Your task to perform on an android device: When is my next meeting? Image 0: 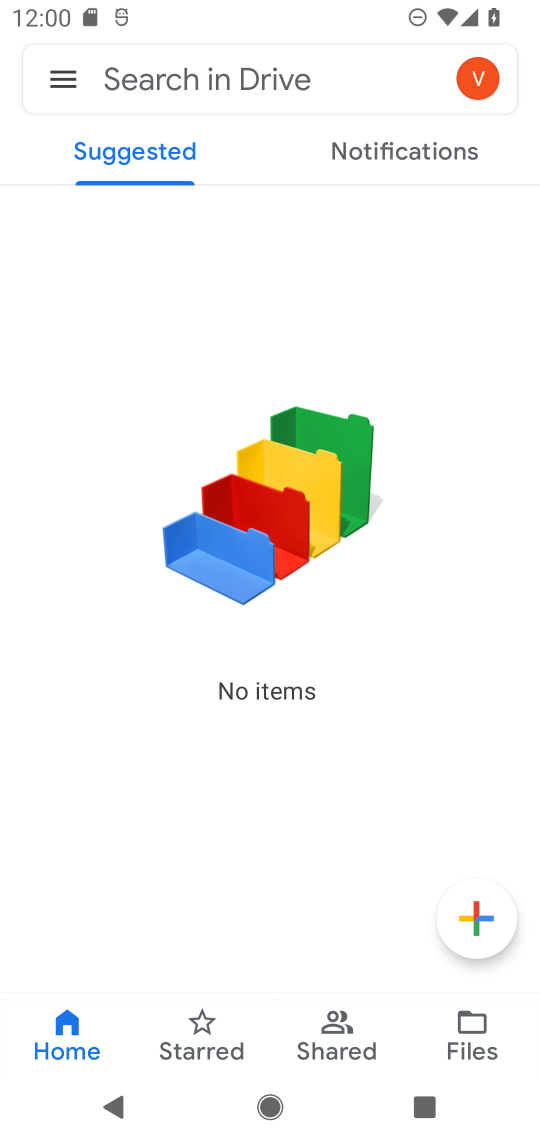
Step 0: press home button
Your task to perform on an android device: When is my next meeting? Image 1: 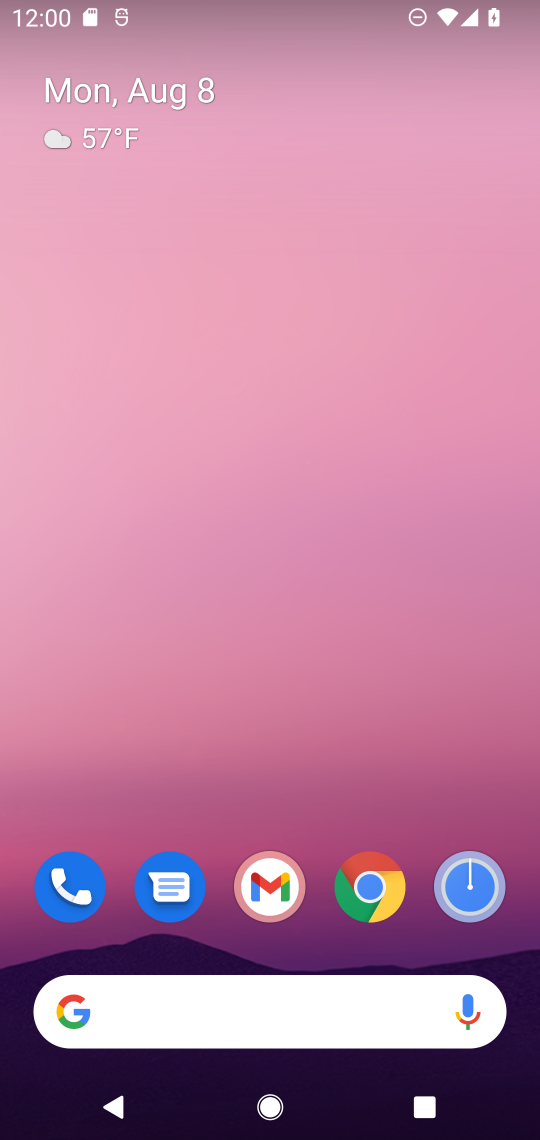
Step 1: drag from (278, 768) to (207, 171)
Your task to perform on an android device: When is my next meeting? Image 2: 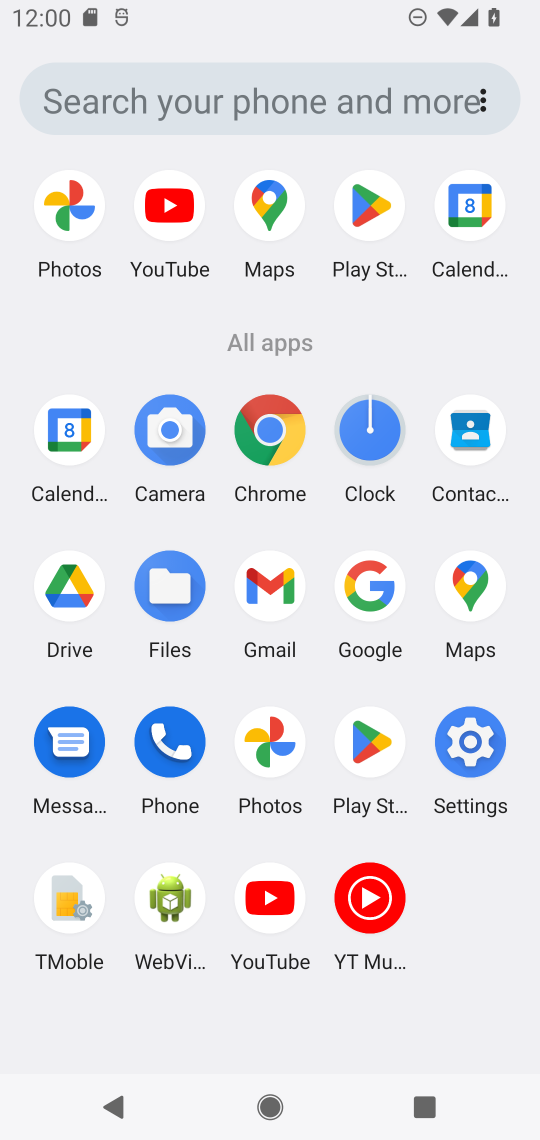
Step 2: click (465, 212)
Your task to perform on an android device: When is my next meeting? Image 3: 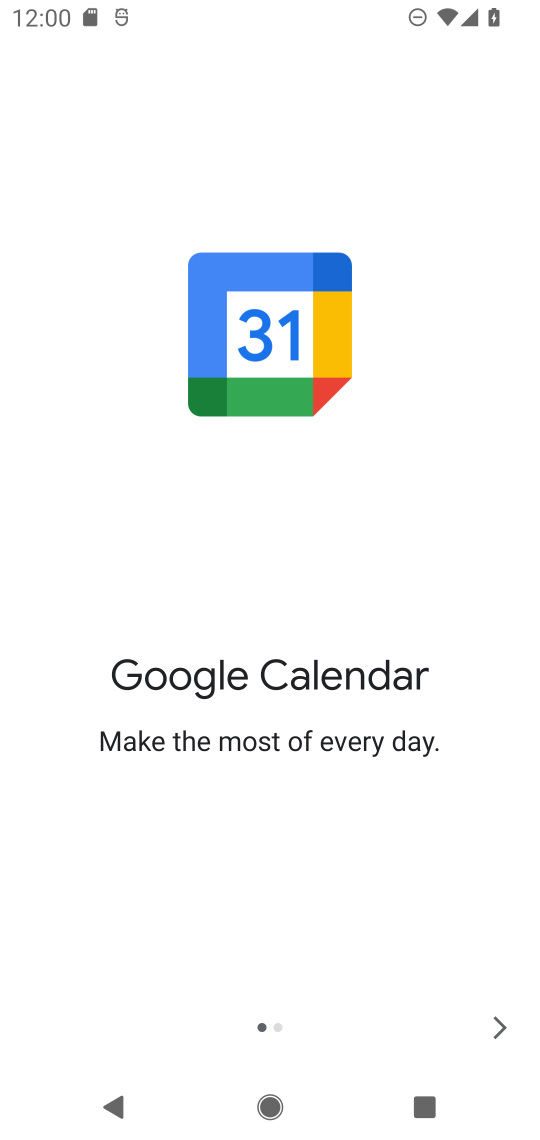
Step 3: click (501, 1021)
Your task to perform on an android device: When is my next meeting? Image 4: 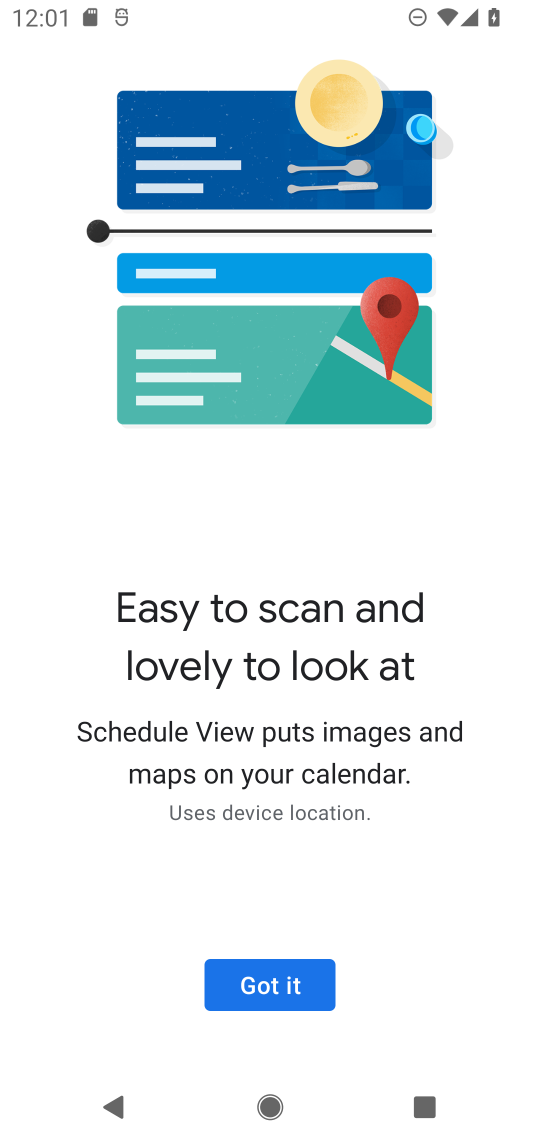
Step 4: click (269, 973)
Your task to perform on an android device: When is my next meeting? Image 5: 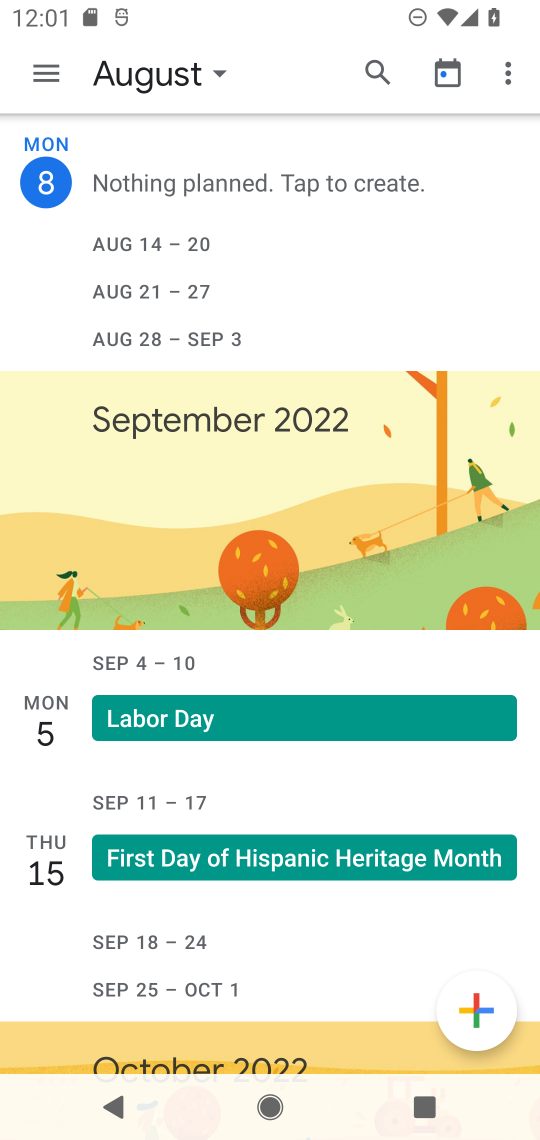
Step 5: click (45, 75)
Your task to perform on an android device: When is my next meeting? Image 6: 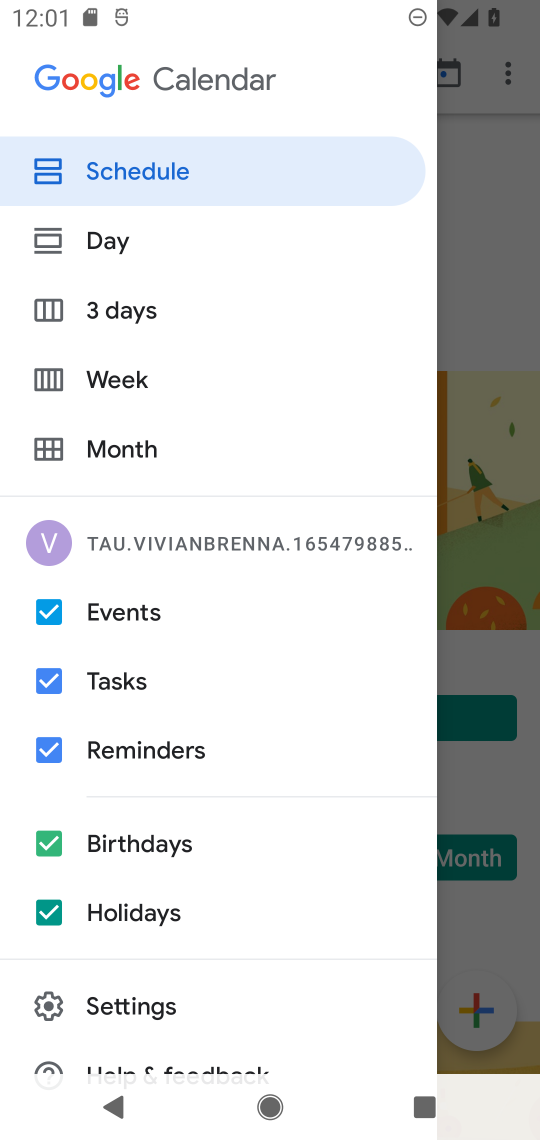
Step 6: click (116, 228)
Your task to perform on an android device: When is my next meeting? Image 7: 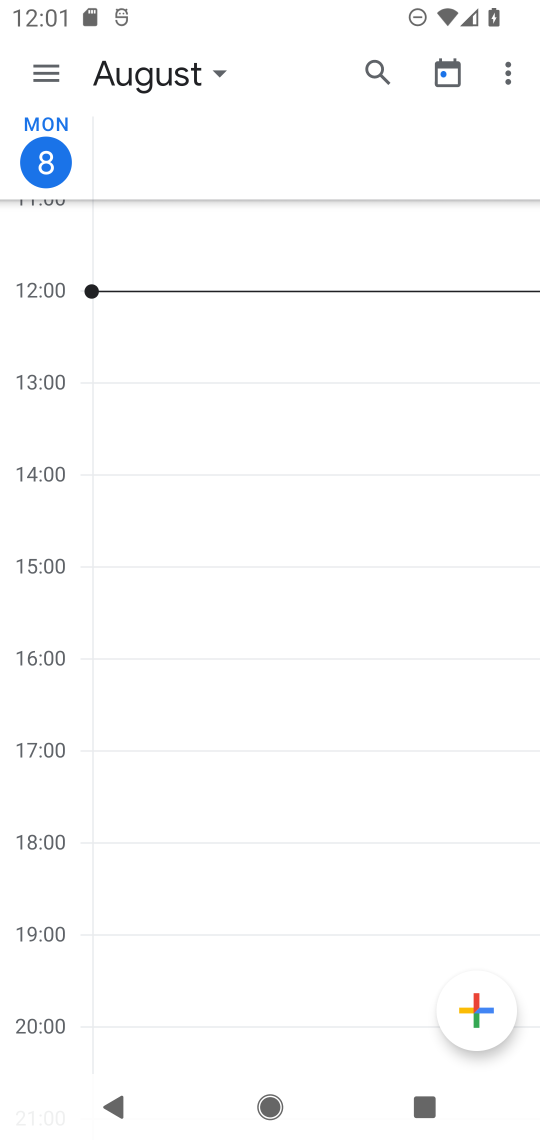
Step 7: task complete